Your task to perform on an android device: add a label to a message in the gmail app Image 0: 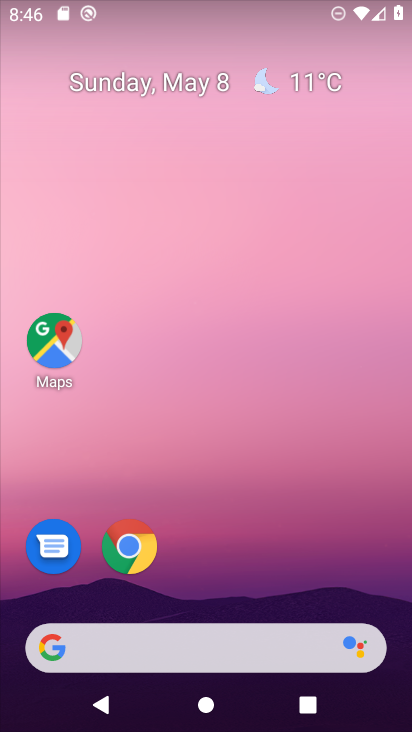
Step 0: drag from (263, 543) to (266, 105)
Your task to perform on an android device: add a label to a message in the gmail app Image 1: 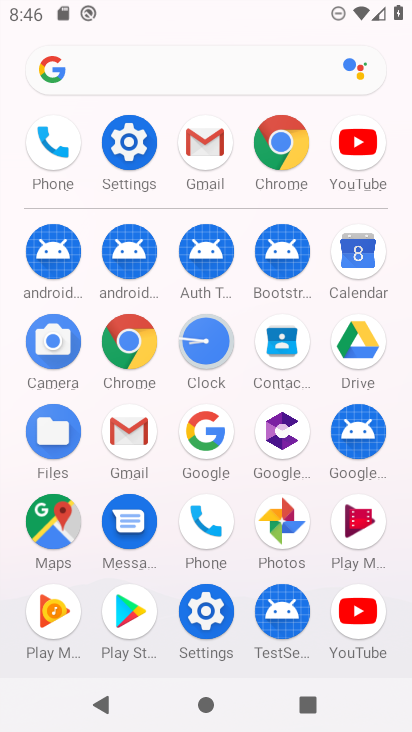
Step 1: click (214, 145)
Your task to perform on an android device: add a label to a message in the gmail app Image 2: 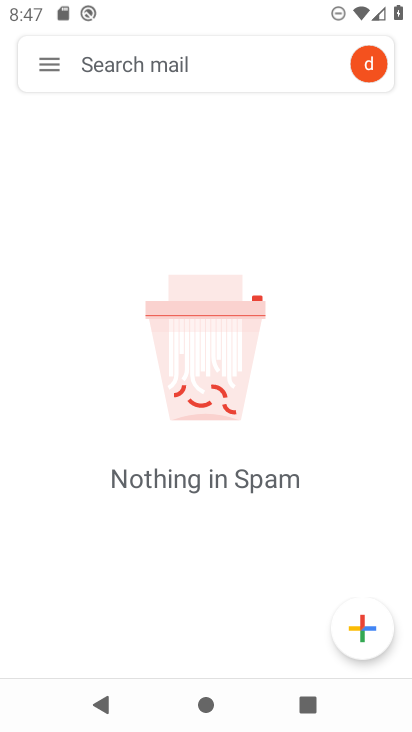
Step 2: press back button
Your task to perform on an android device: add a label to a message in the gmail app Image 3: 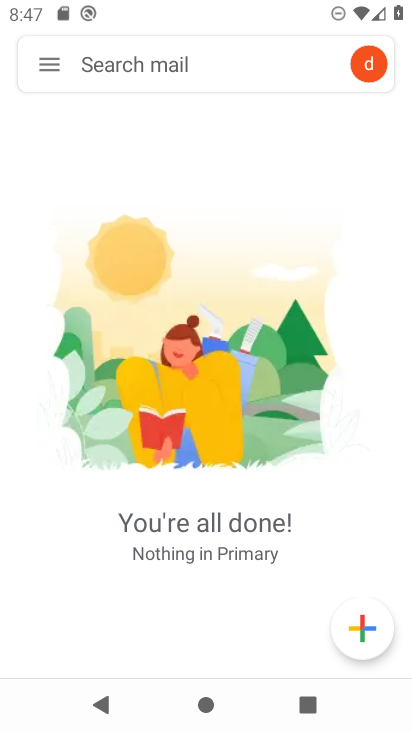
Step 3: click (52, 63)
Your task to perform on an android device: add a label to a message in the gmail app Image 4: 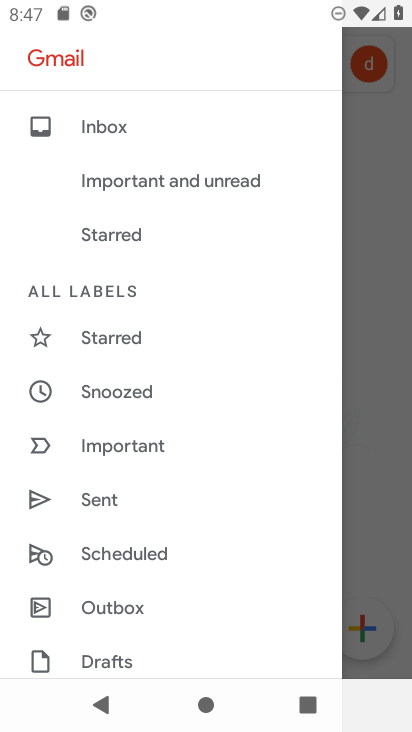
Step 4: drag from (181, 580) to (281, 147)
Your task to perform on an android device: add a label to a message in the gmail app Image 5: 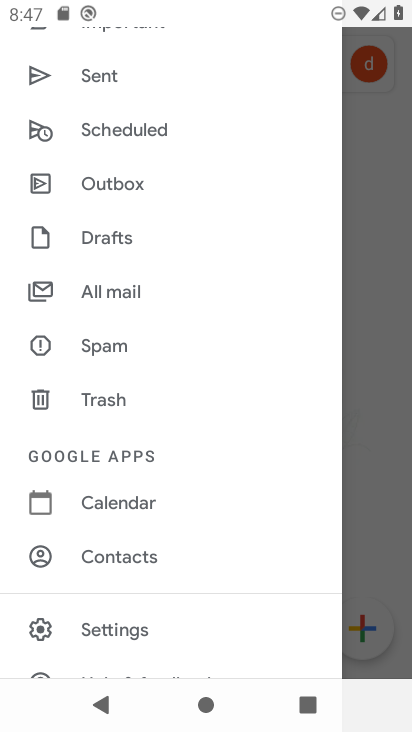
Step 5: click (136, 281)
Your task to perform on an android device: add a label to a message in the gmail app Image 6: 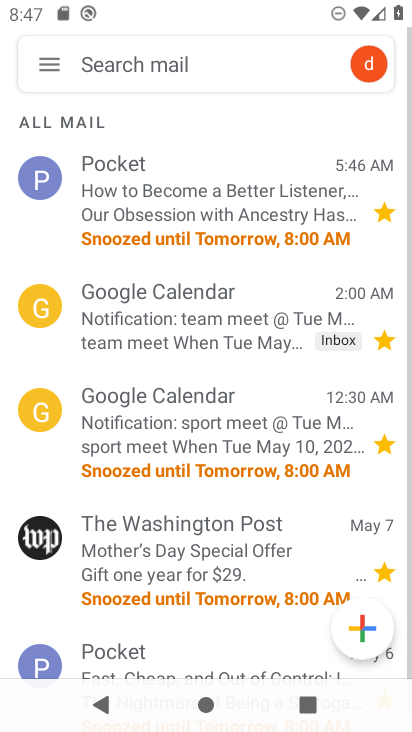
Step 6: drag from (252, 554) to (286, 183)
Your task to perform on an android device: add a label to a message in the gmail app Image 7: 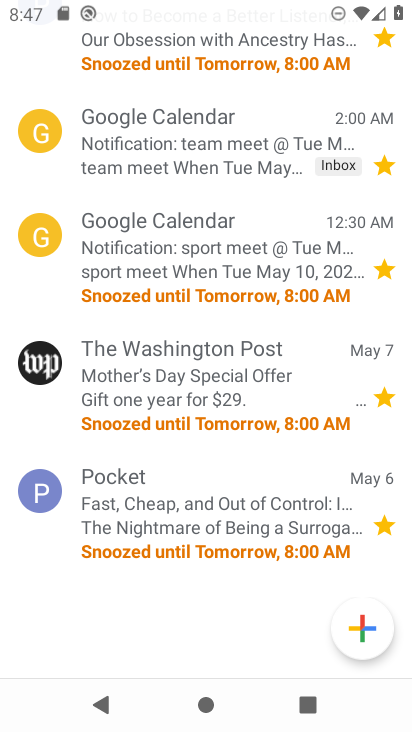
Step 7: click (187, 526)
Your task to perform on an android device: add a label to a message in the gmail app Image 8: 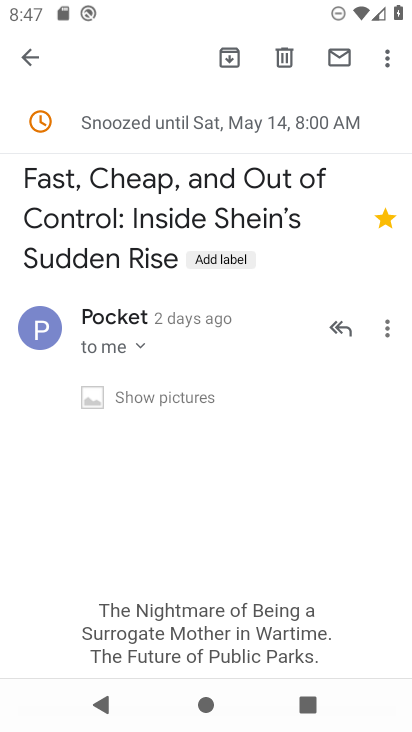
Step 8: click (382, 61)
Your task to perform on an android device: add a label to a message in the gmail app Image 9: 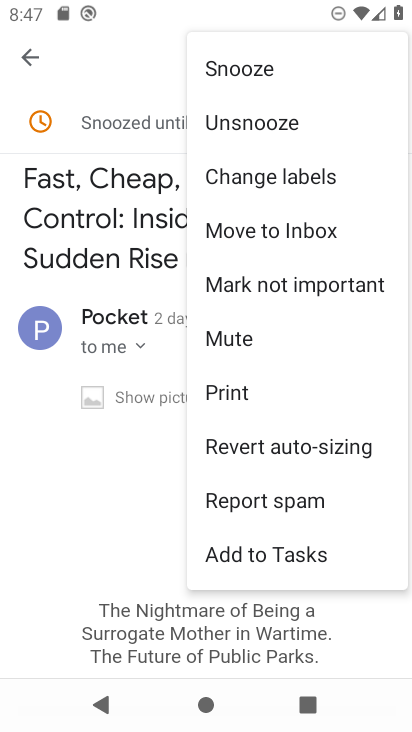
Step 9: click (51, 469)
Your task to perform on an android device: add a label to a message in the gmail app Image 10: 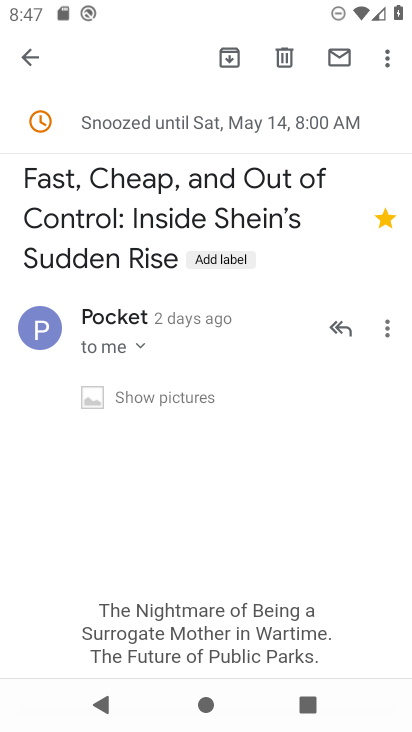
Step 10: click (388, 329)
Your task to perform on an android device: add a label to a message in the gmail app Image 11: 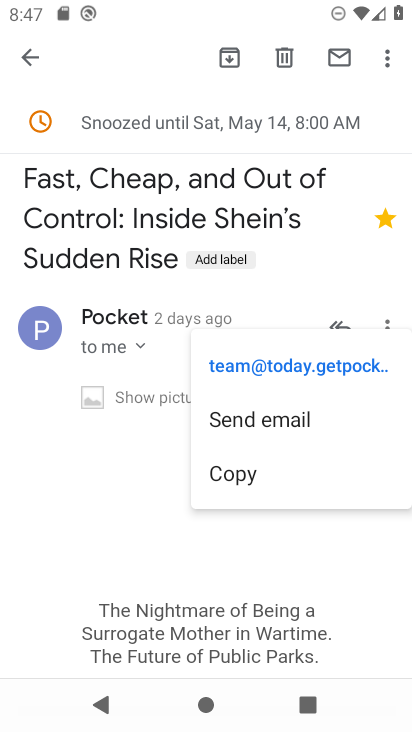
Step 11: click (93, 484)
Your task to perform on an android device: add a label to a message in the gmail app Image 12: 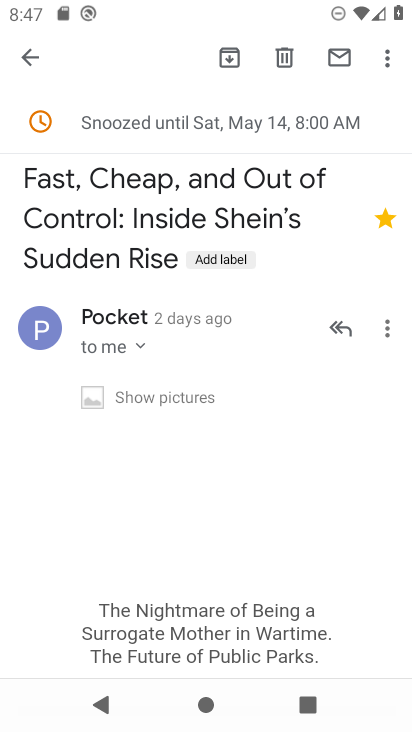
Step 12: click (386, 59)
Your task to perform on an android device: add a label to a message in the gmail app Image 13: 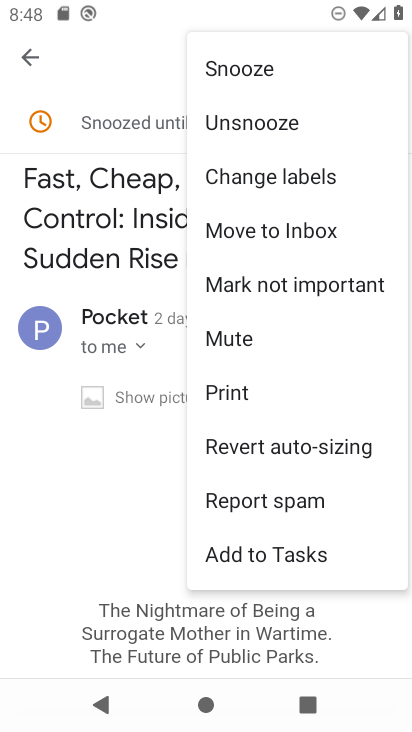
Step 13: click (323, 165)
Your task to perform on an android device: add a label to a message in the gmail app Image 14: 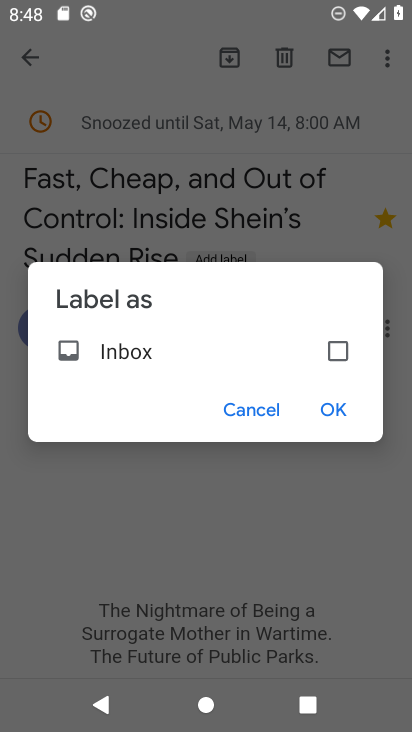
Step 14: click (339, 349)
Your task to perform on an android device: add a label to a message in the gmail app Image 15: 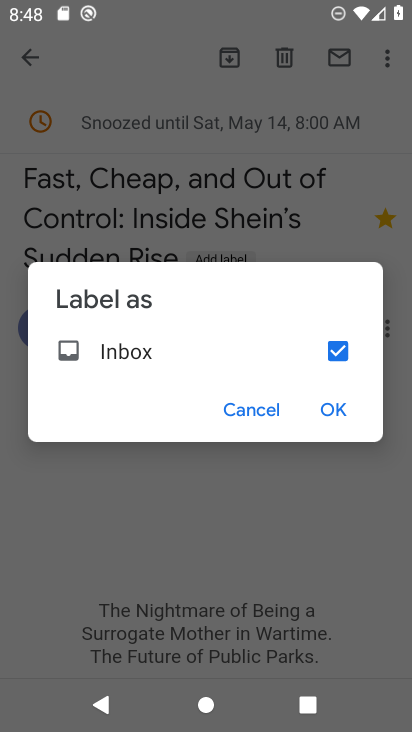
Step 15: click (334, 399)
Your task to perform on an android device: add a label to a message in the gmail app Image 16: 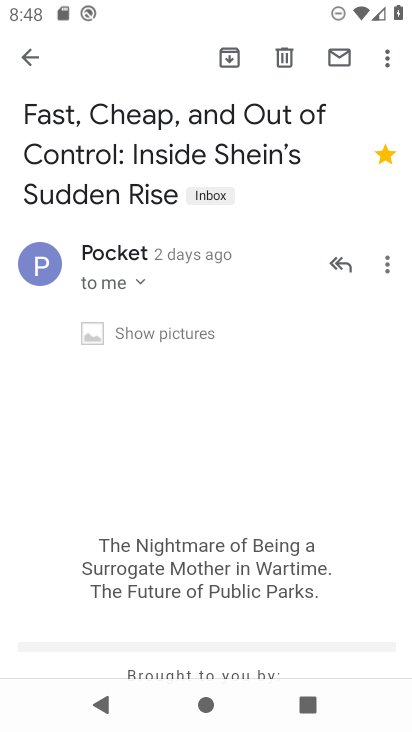
Step 16: task complete